Your task to perform on an android device: show emergency info Image 0: 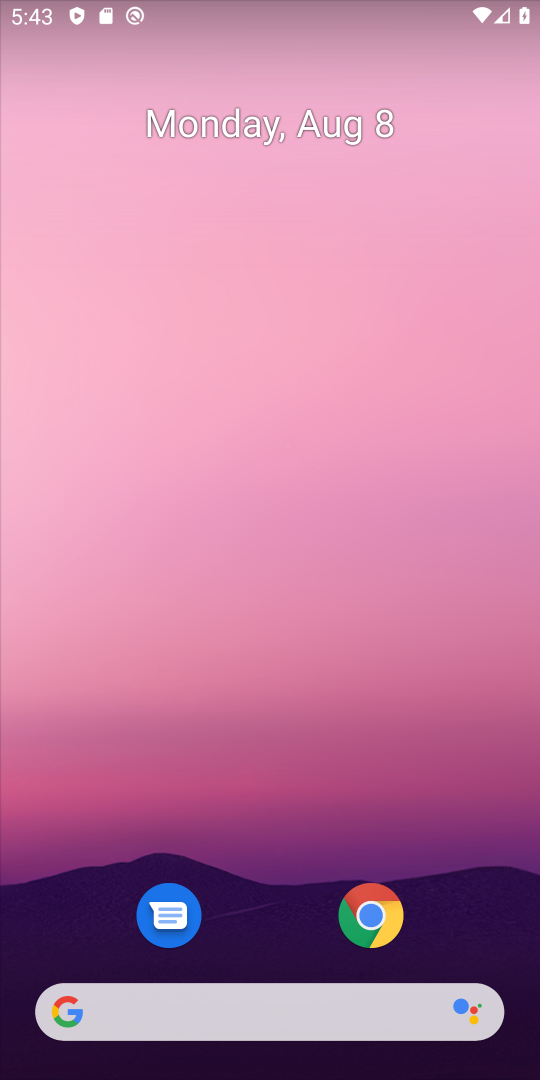
Step 0: drag from (307, 800) to (240, 112)
Your task to perform on an android device: show emergency info Image 1: 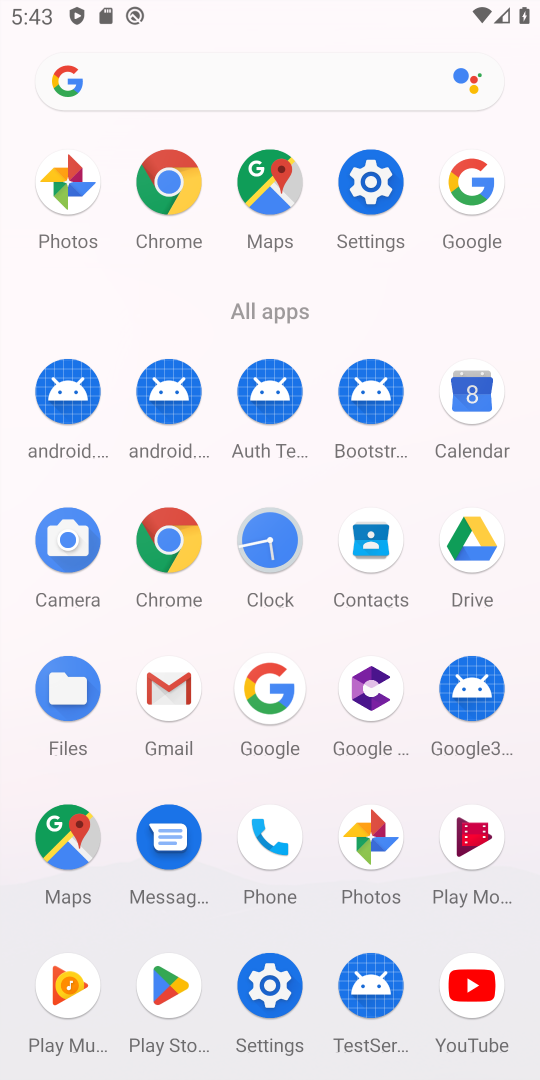
Step 1: click (368, 176)
Your task to perform on an android device: show emergency info Image 2: 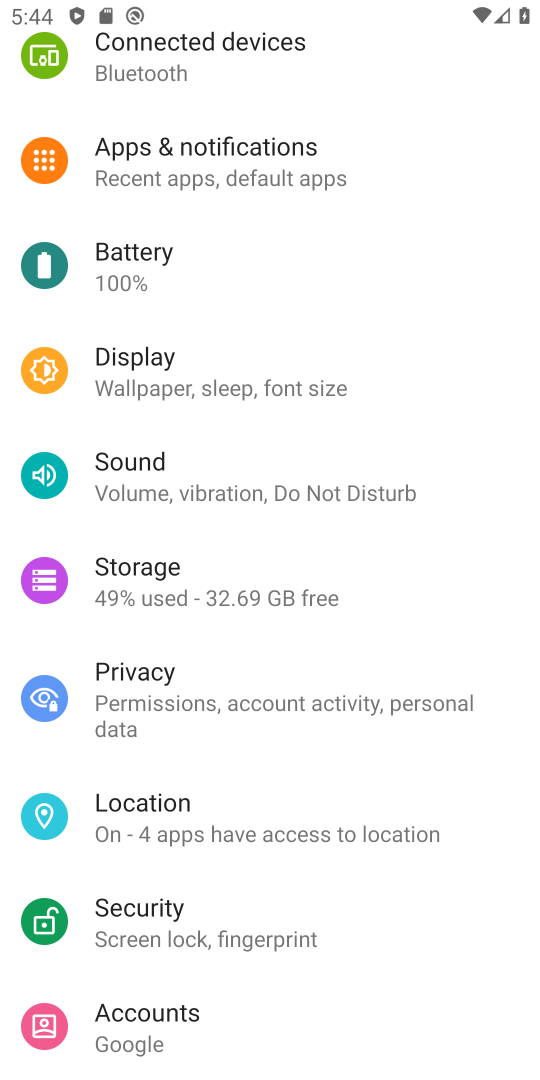
Step 2: drag from (299, 901) to (242, 175)
Your task to perform on an android device: show emergency info Image 3: 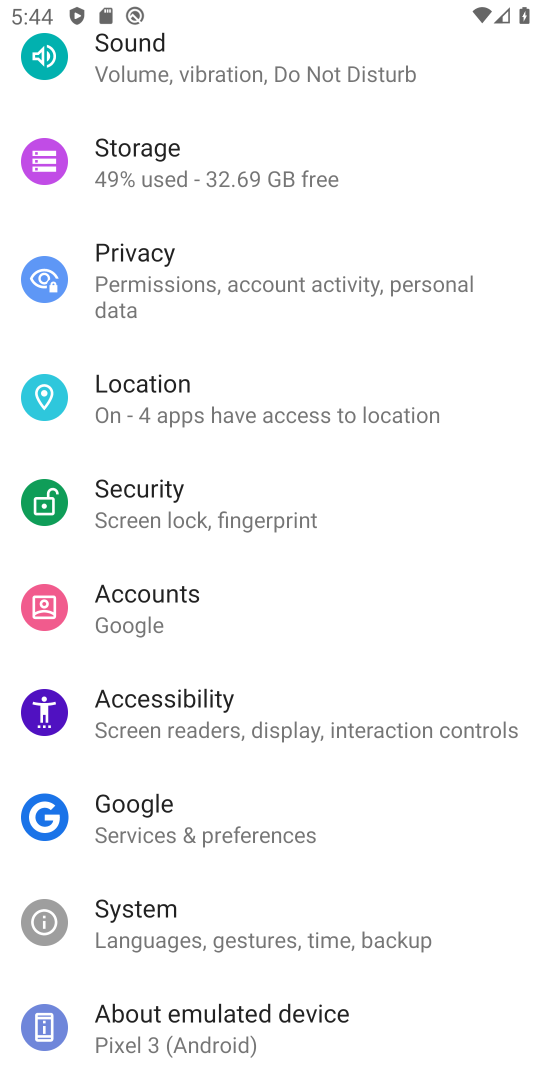
Step 3: click (219, 1017)
Your task to perform on an android device: show emergency info Image 4: 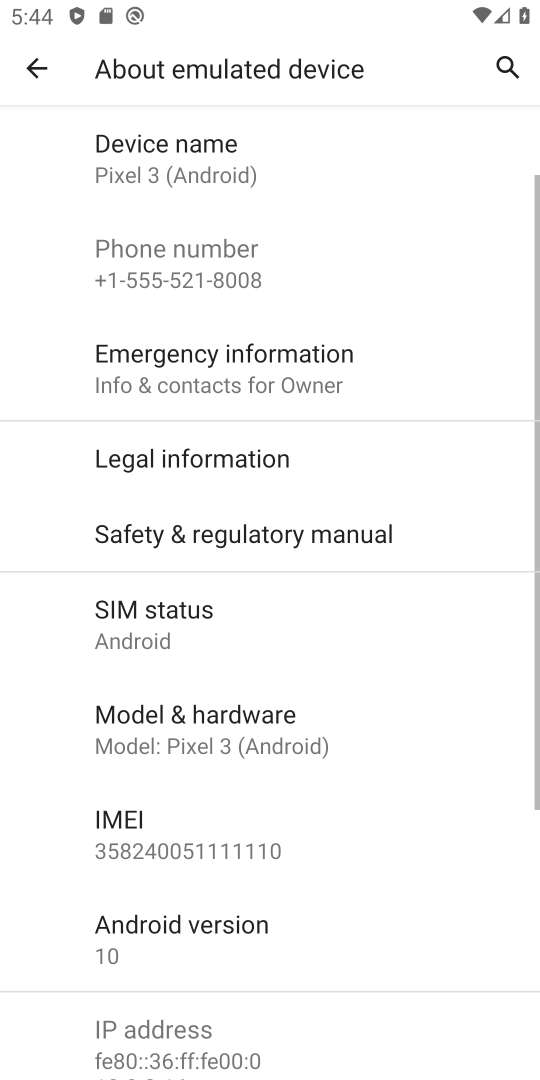
Step 4: drag from (328, 929) to (314, 578)
Your task to perform on an android device: show emergency info Image 5: 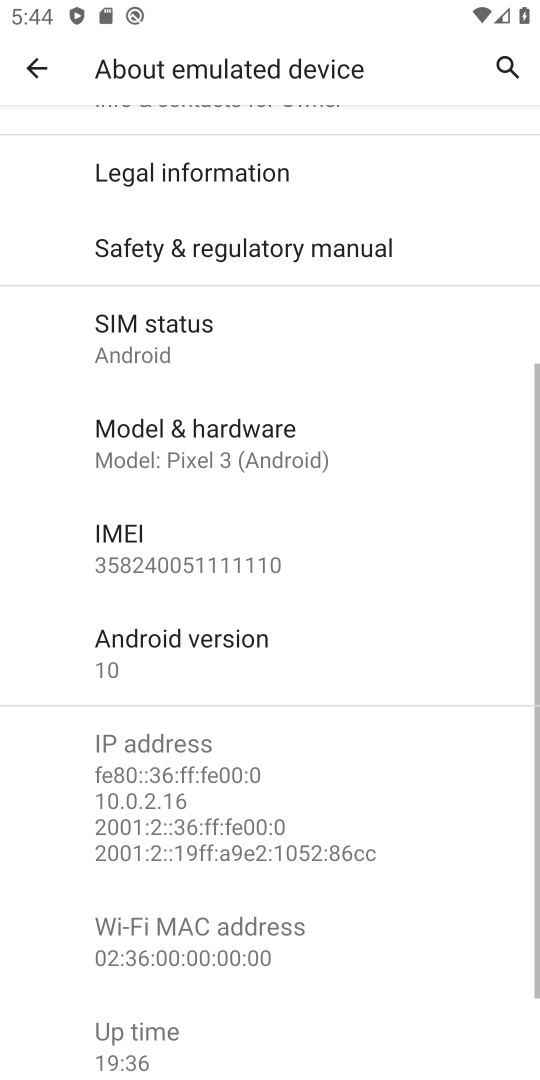
Step 5: drag from (352, 195) to (362, 932)
Your task to perform on an android device: show emergency info Image 6: 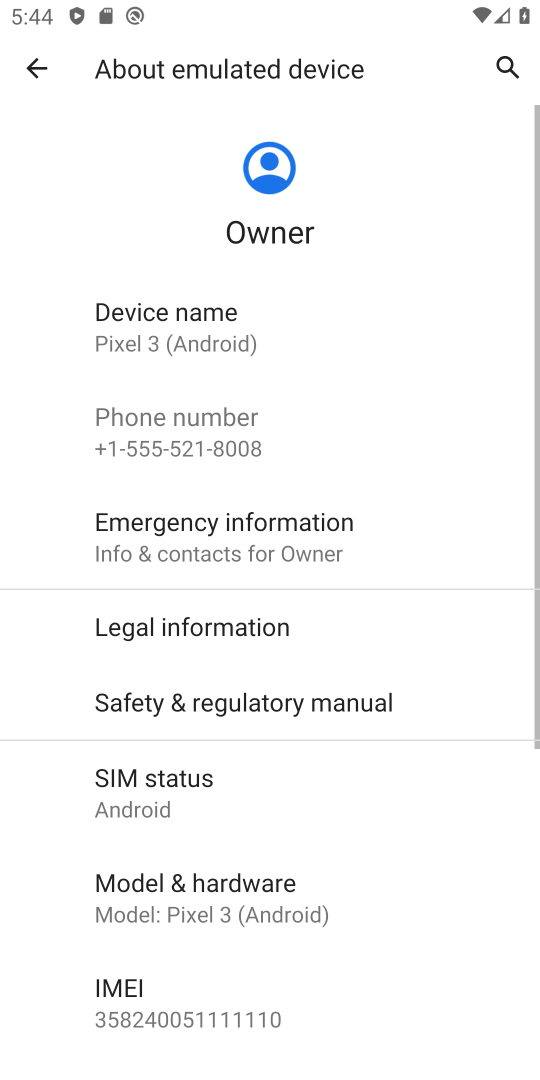
Step 6: click (242, 509)
Your task to perform on an android device: show emergency info Image 7: 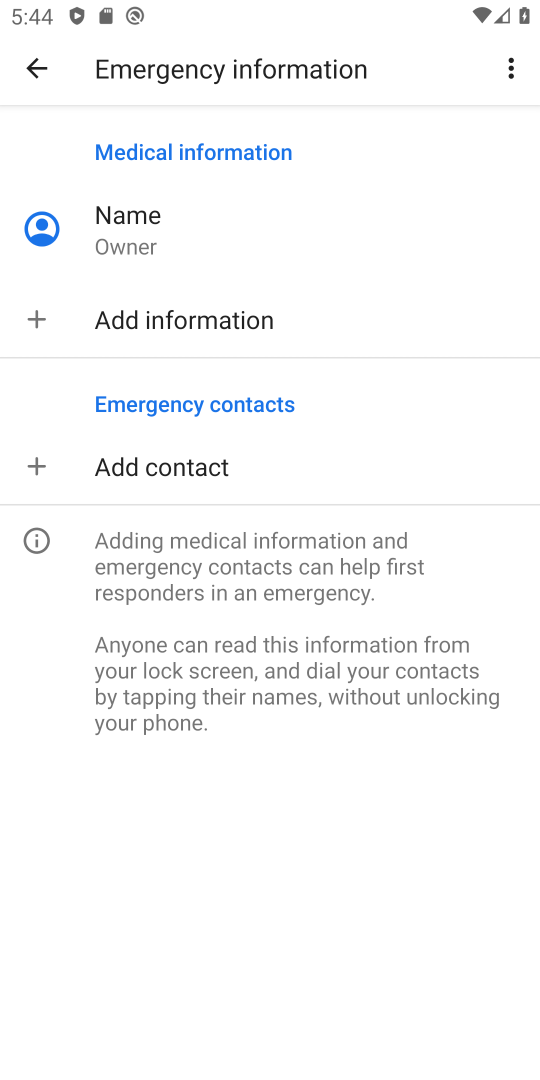
Step 7: task complete